Your task to perform on an android device: Open sound settings Image 0: 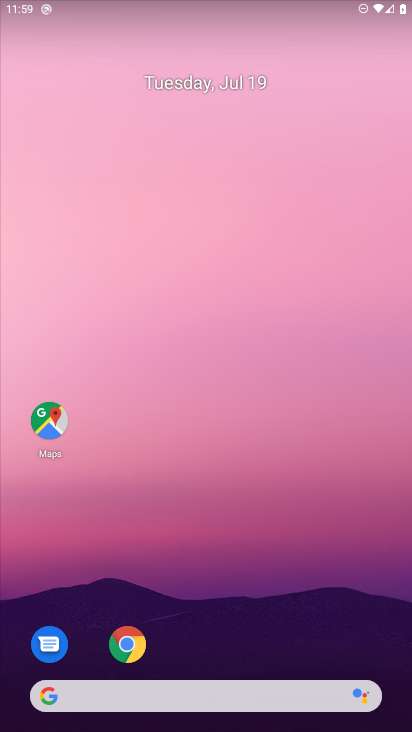
Step 0: drag from (193, 163) to (249, 0)
Your task to perform on an android device: Open sound settings Image 1: 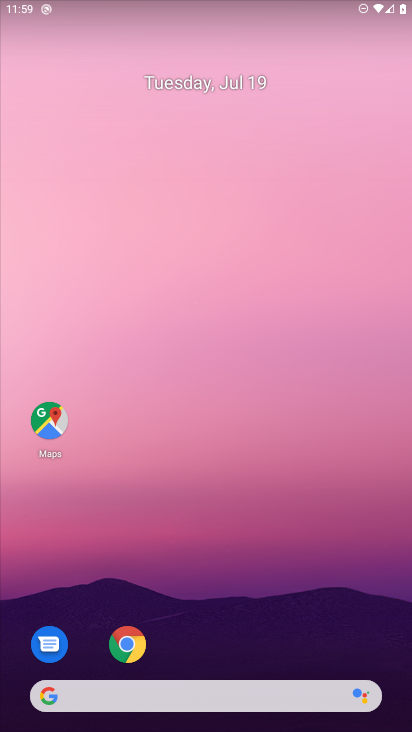
Step 1: drag from (7, 690) to (258, 50)
Your task to perform on an android device: Open sound settings Image 2: 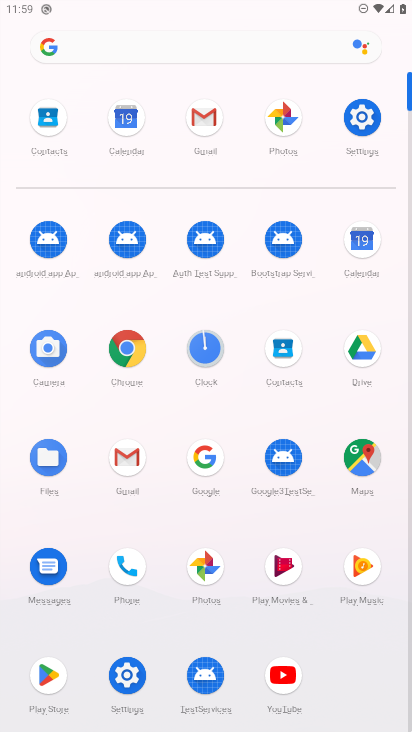
Step 2: click (115, 690)
Your task to perform on an android device: Open sound settings Image 3: 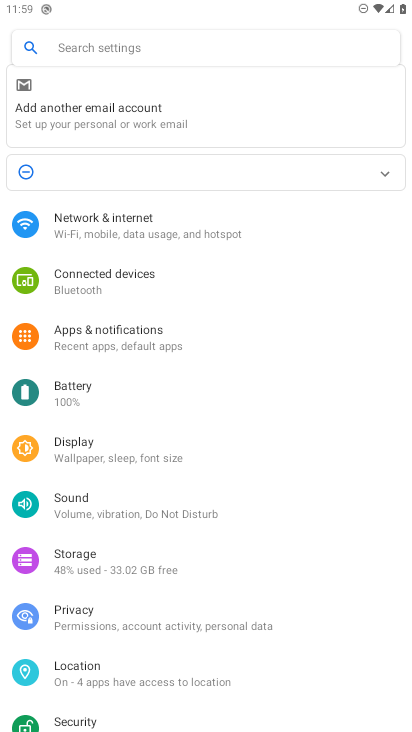
Step 3: click (94, 512)
Your task to perform on an android device: Open sound settings Image 4: 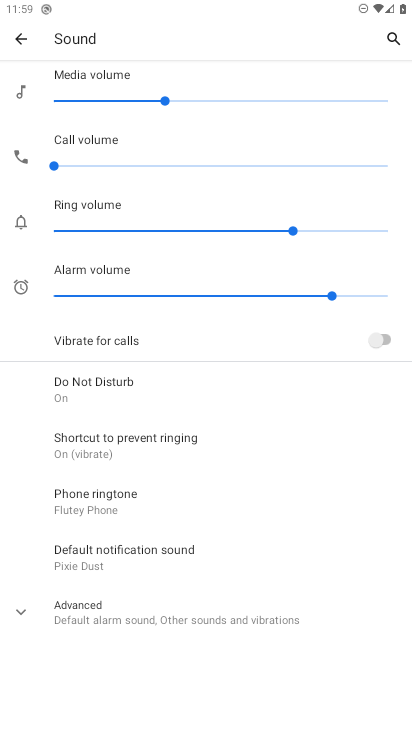
Step 4: task complete